Your task to perform on an android device: add a label to a message in the gmail app Image 0: 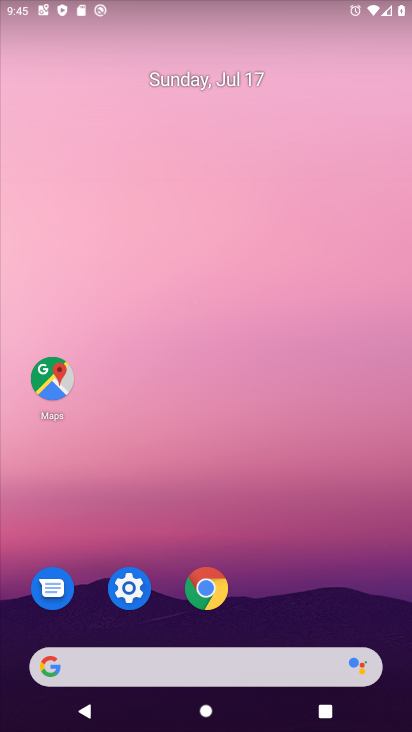
Step 0: drag from (255, 578) to (183, 96)
Your task to perform on an android device: add a label to a message in the gmail app Image 1: 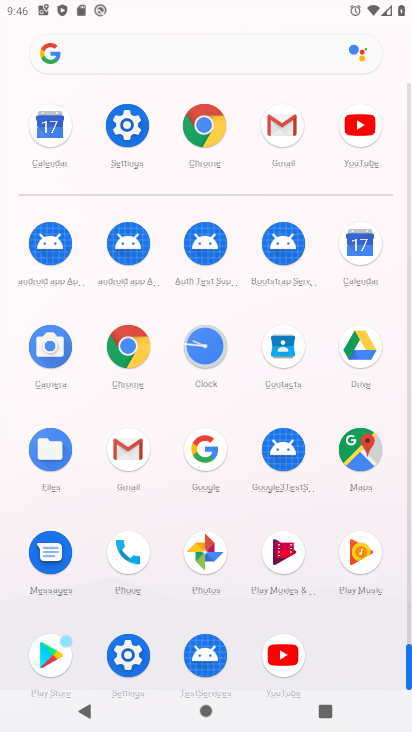
Step 1: click (124, 450)
Your task to perform on an android device: add a label to a message in the gmail app Image 2: 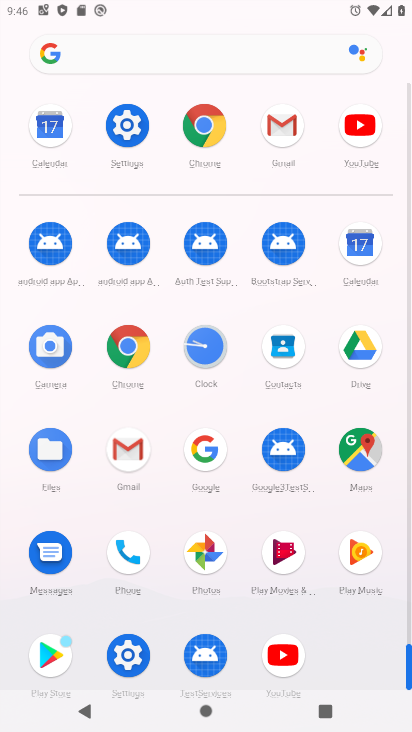
Step 2: click (124, 449)
Your task to perform on an android device: add a label to a message in the gmail app Image 3: 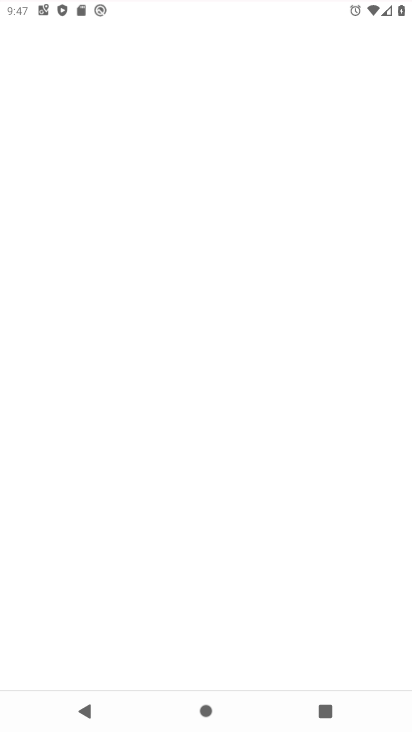
Step 3: click (124, 450)
Your task to perform on an android device: add a label to a message in the gmail app Image 4: 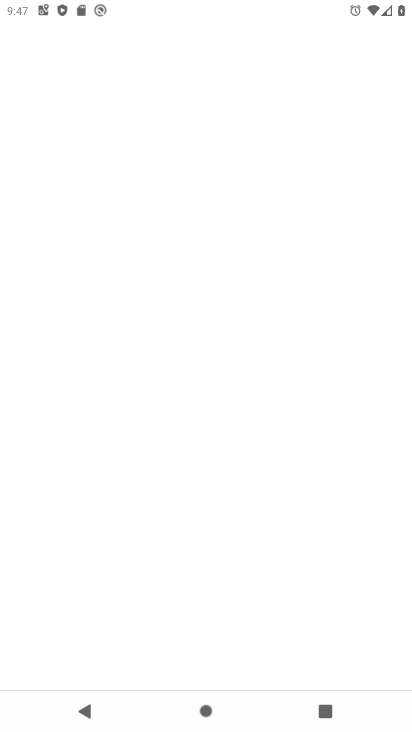
Step 4: click (124, 450)
Your task to perform on an android device: add a label to a message in the gmail app Image 5: 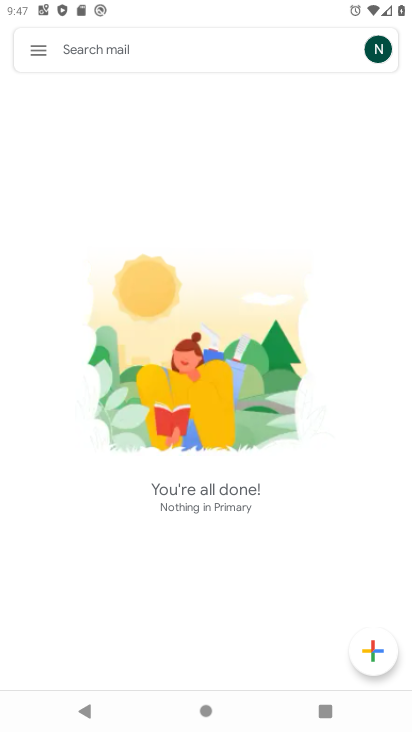
Step 5: click (30, 51)
Your task to perform on an android device: add a label to a message in the gmail app Image 6: 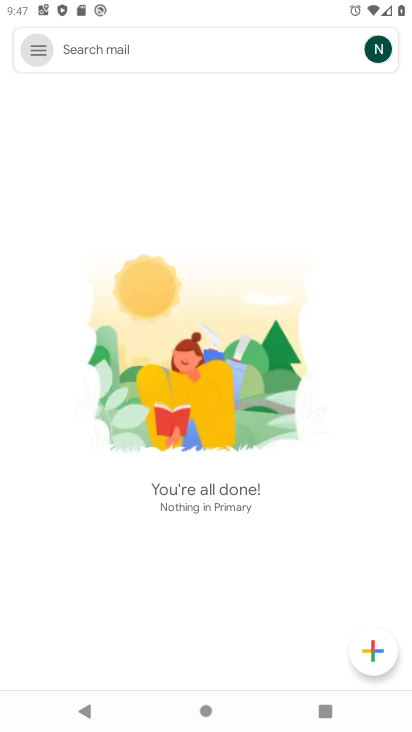
Step 6: click (30, 51)
Your task to perform on an android device: add a label to a message in the gmail app Image 7: 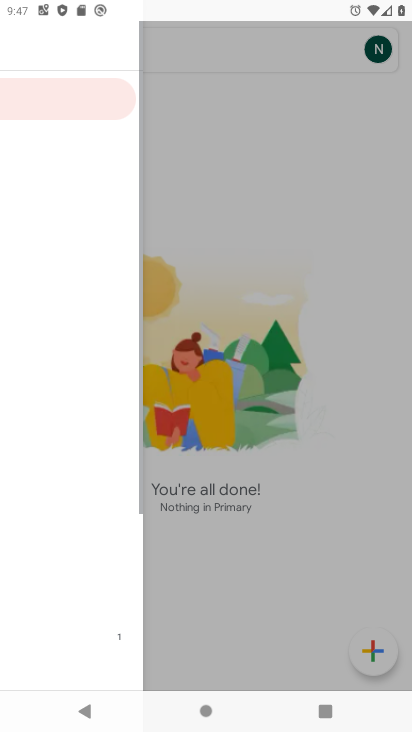
Step 7: click (30, 51)
Your task to perform on an android device: add a label to a message in the gmail app Image 8: 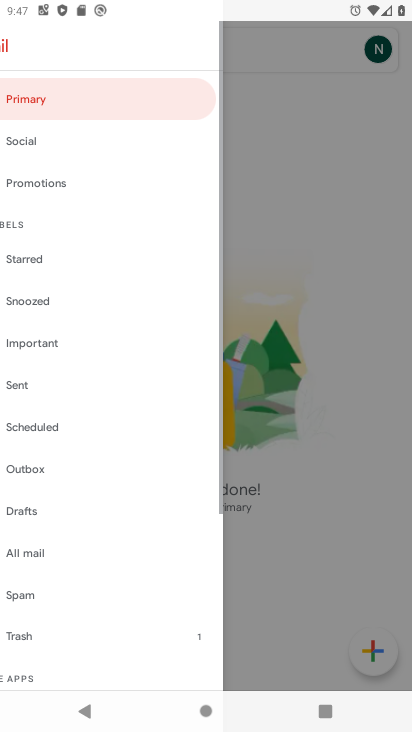
Step 8: click (30, 51)
Your task to perform on an android device: add a label to a message in the gmail app Image 9: 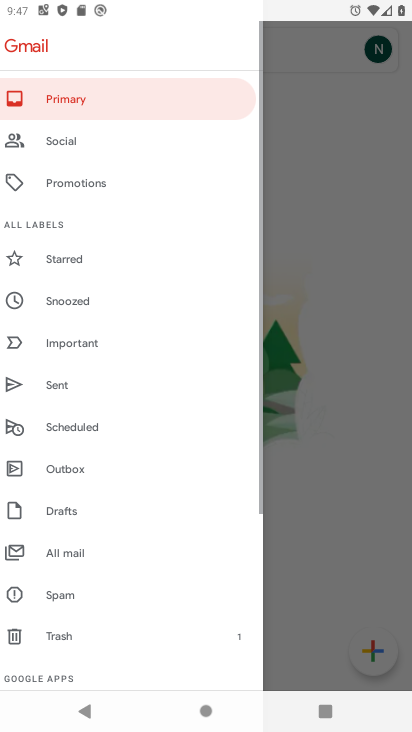
Step 9: click (31, 53)
Your task to perform on an android device: add a label to a message in the gmail app Image 10: 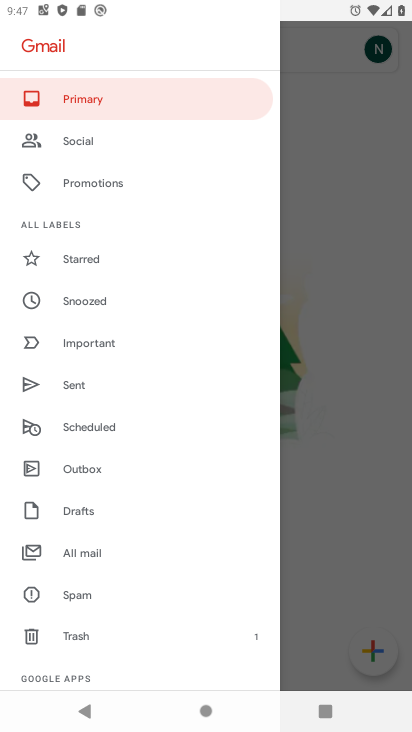
Step 10: drag from (134, 595) to (123, 184)
Your task to perform on an android device: add a label to a message in the gmail app Image 11: 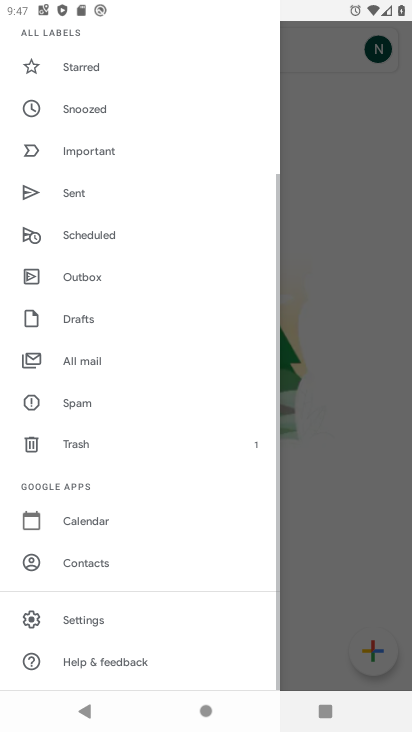
Step 11: click (77, 361)
Your task to perform on an android device: add a label to a message in the gmail app Image 12: 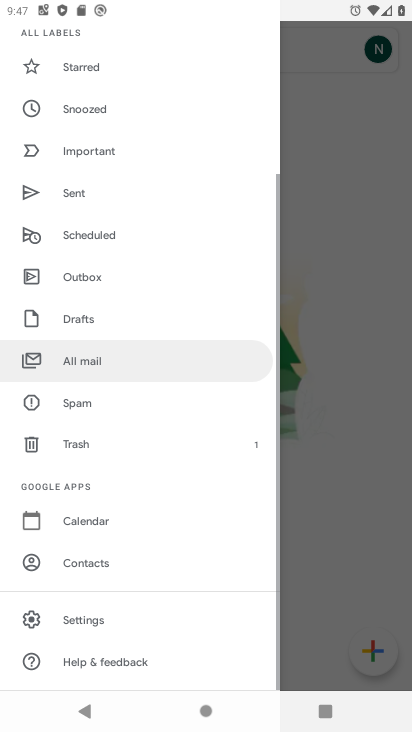
Step 12: click (77, 361)
Your task to perform on an android device: add a label to a message in the gmail app Image 13: 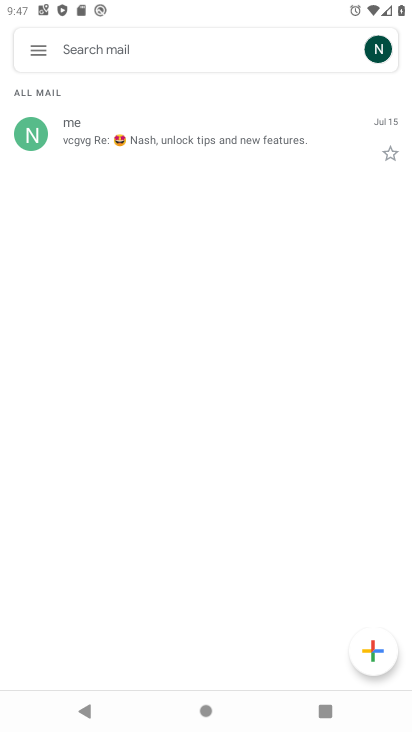
Step 13: click (246, 136)
Your task to perform on an android device: add a label to a message in the gmail app Image 14: 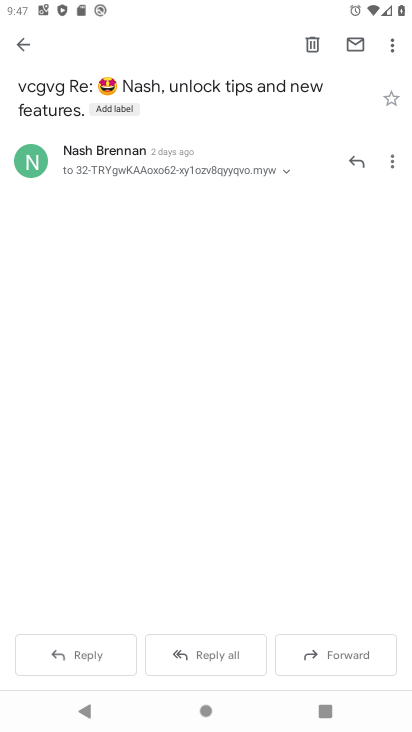
Step 14: click (399, 36)
Your task to perform on an android device: add a label to a message in the gmail app Image 15: 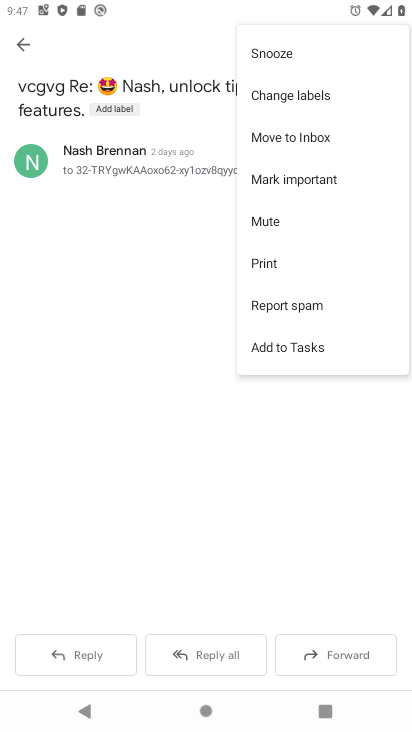
Step 15: click (285, 94)
Your task to perform on an android device: add a label to a message in the gmail app Image 16: 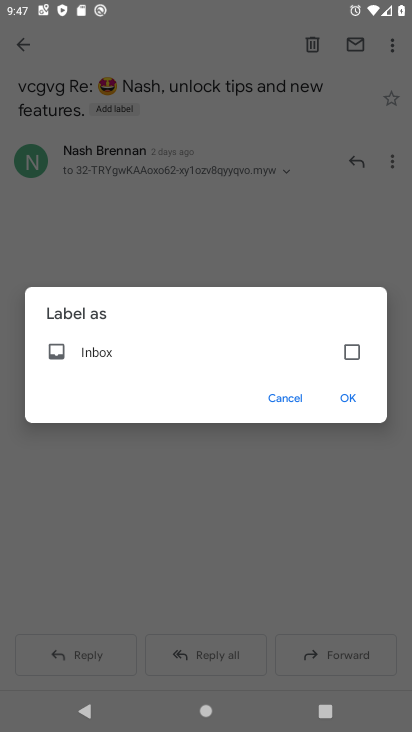
Step 16: click (351, 397)
Your task to perform on an android device: add a label to a message in the gmail app Image 17: 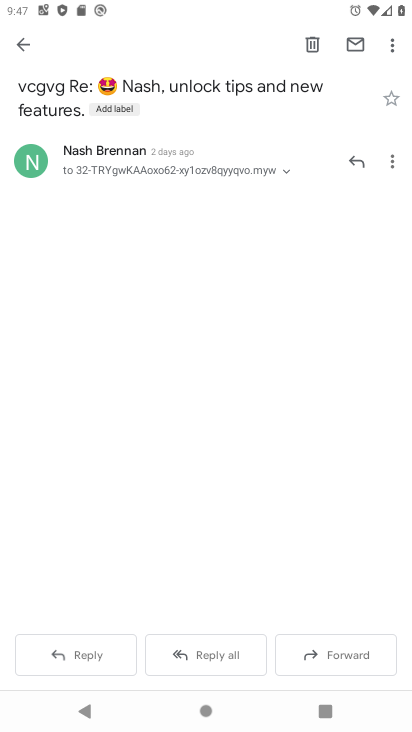
Step 17: click (384, 82)
Your task to perform on an android device: add a label to a message in the gmail app Image 18: 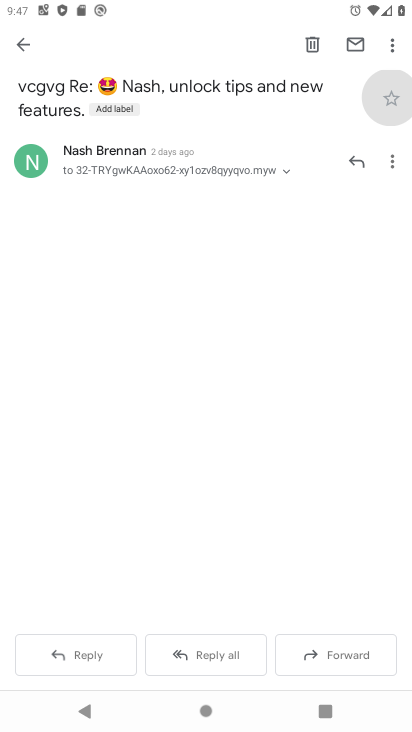
Step 18: click (393, 122)
Your task to perform on an android device: add a label to a message in the gmail app Image 19: 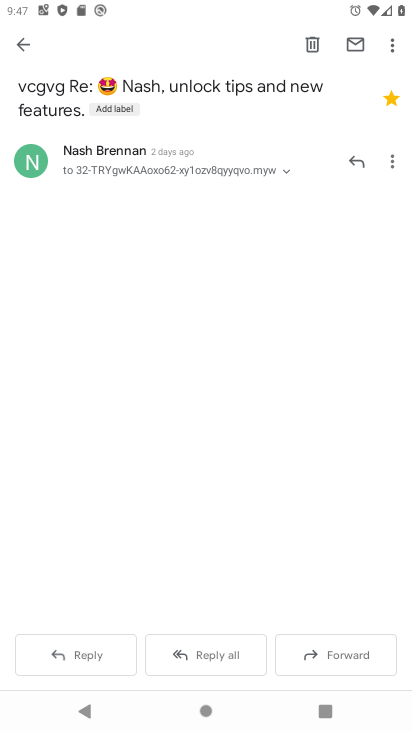
Step 19: task complete